Your task to perform on an android device: Search for Italian restaurants on Maps Image 0: 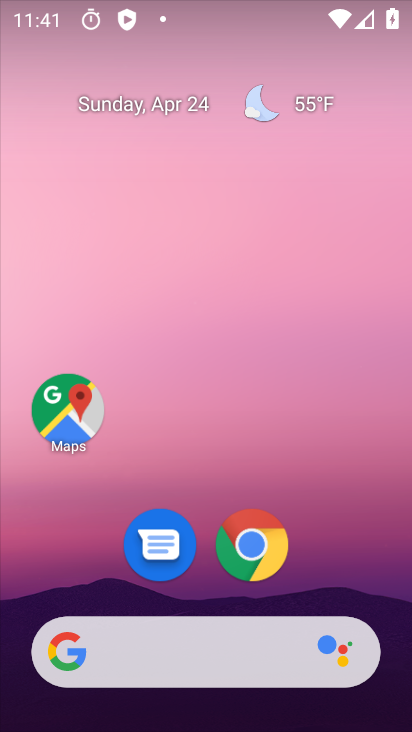
Step 0: drag from (331, 619) to (238, 120)
Your task to perform on an android device: Search for Italian restaurants on Maps Image 1: 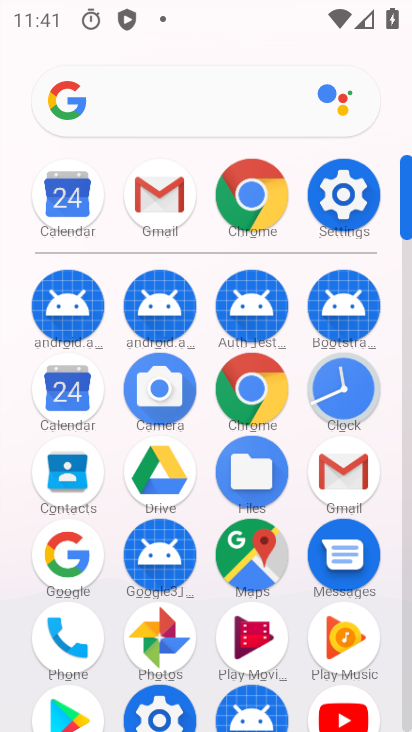
Step 1: drag from (252, 437) to (265, 577)
Your task to perform on an android device: Search for Italian restaurants on Maps Image 2: 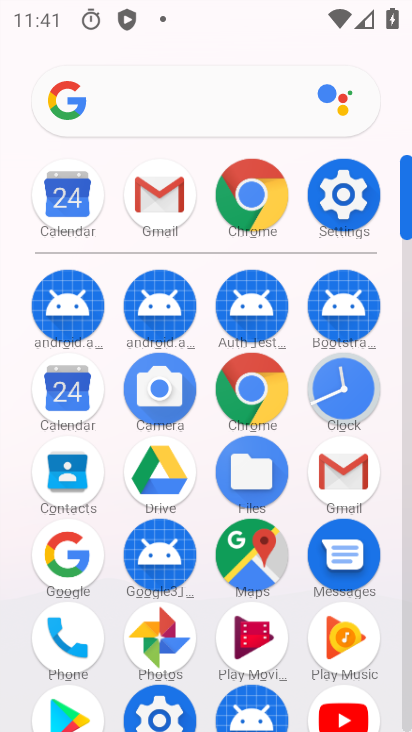
Step 2: drag from (259, 558) to (262, 521)
Your task to perform on an android device: Search for Italian restaurants on Maps Image 3: 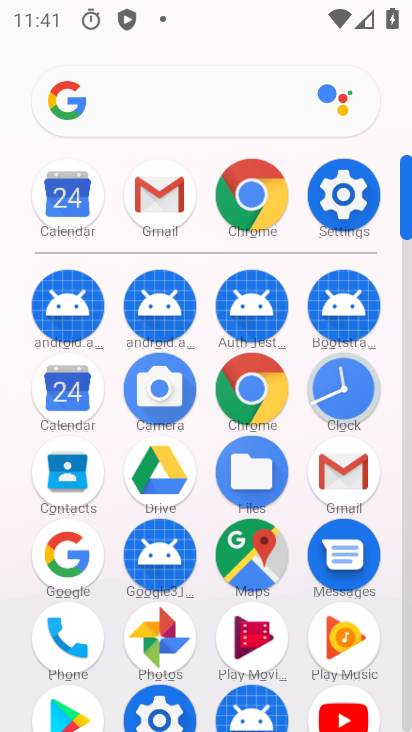
Step 3: click (239, 544)
Your task to perform on an android device: Search for Italian restaurants on Maps Image 4: 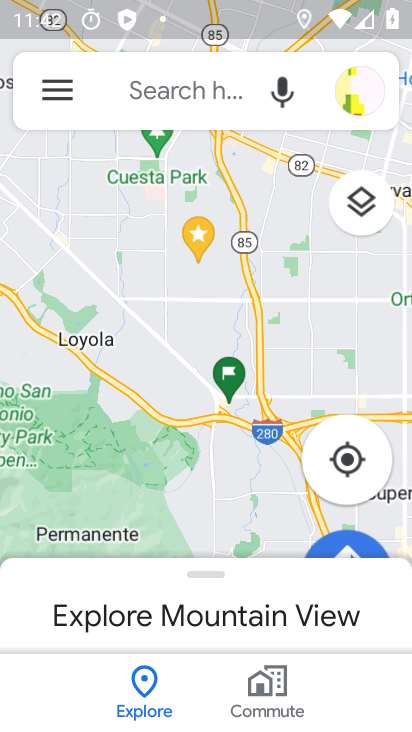
Step 4: click (209, 84)
Your task to perform on an android device: Search for Italian restaurants on Maps Image 5: 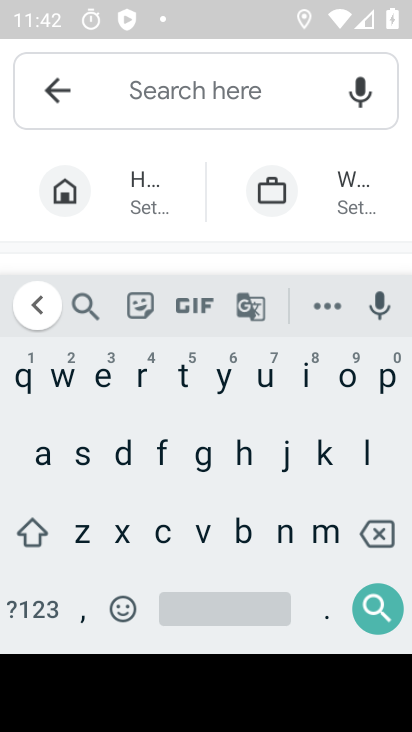
Step 5: click (314, 377)
Your task to perform on an android device: Search for Italian restaurants on Maps Image 6: 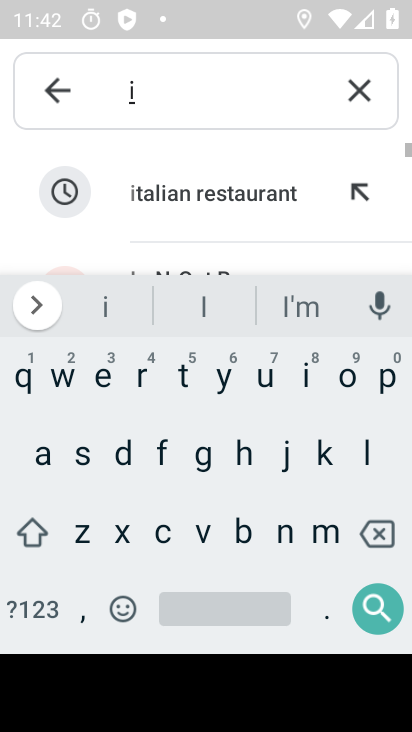
Step 6: click (160, 186)
Your task to perform on an android device: Search for Italian restaurants on Maps Image 7: 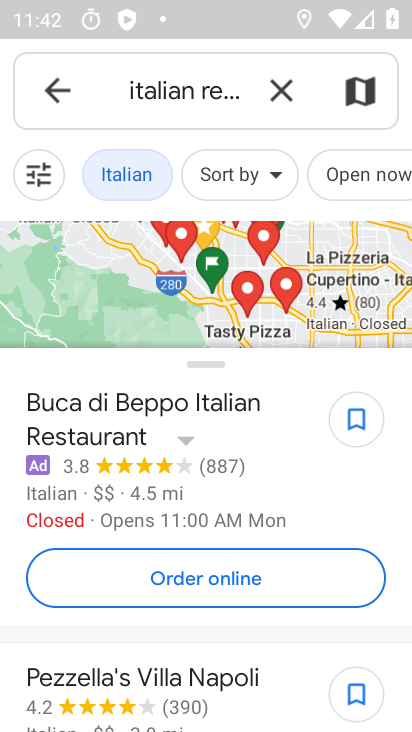
Step 7: task complete